Your task to perform on an android device: When is my next appointment? Image 0: 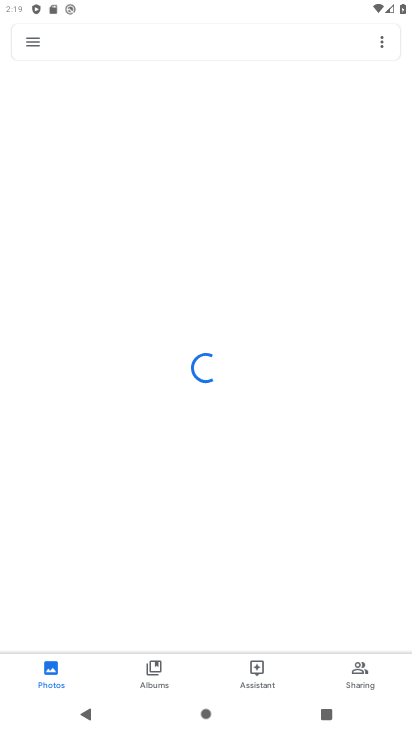
Step 0: press home button
Your task to perform on an android device: When is my next appointment? Image 1: 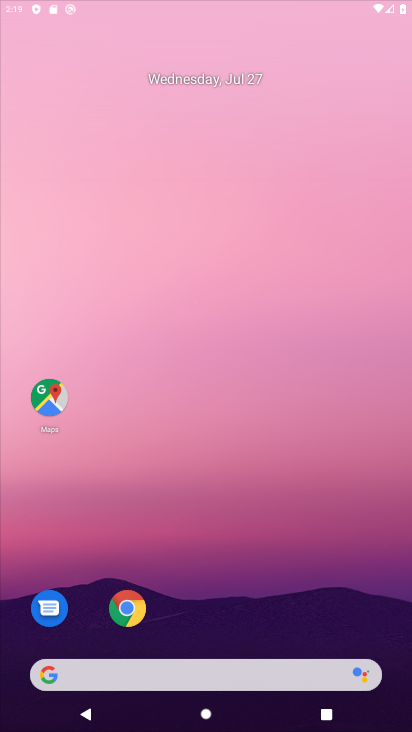
Step 1: drag from (299, 568) to (302, 243)
Your task to perform on an android device: When is my next appointment? Image 2: 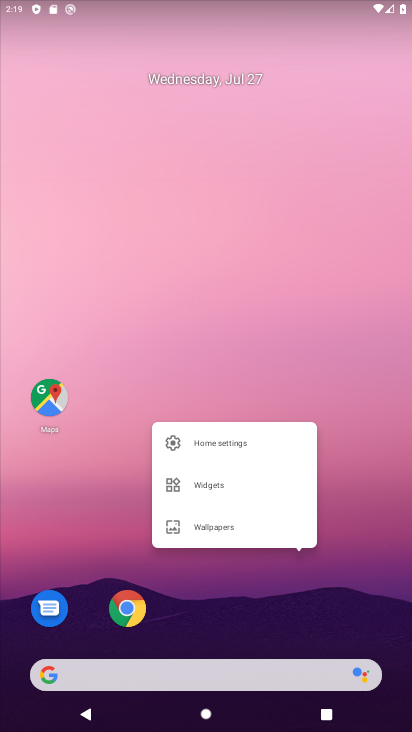
Step 2: click (285, 337)
Your task to perform on an android device: When is my next appointment? Image 3: 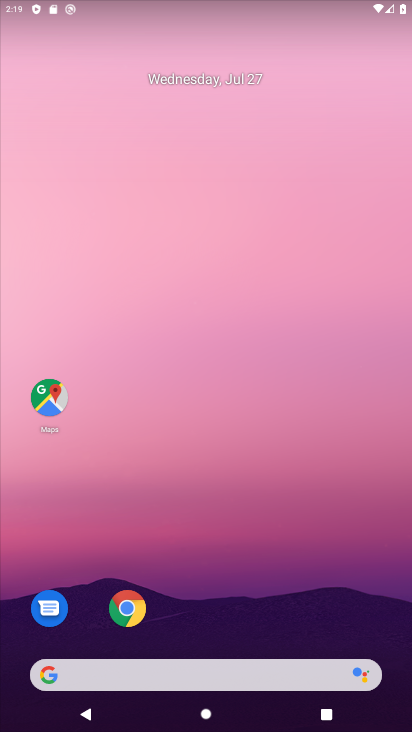
Step 3: drag from (278, 562) to (255, 12)
Your task to perform on an android device: When is my next appointment? Image 4: 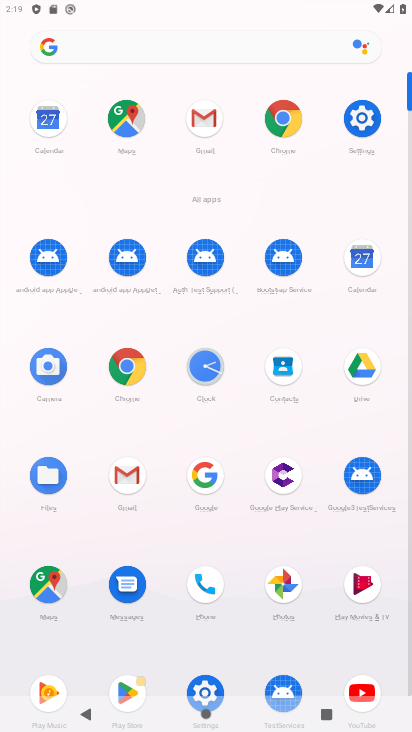
Step 4: click (365, 268)
Your task to perform on an android device: When is my next appointment? Image 5: 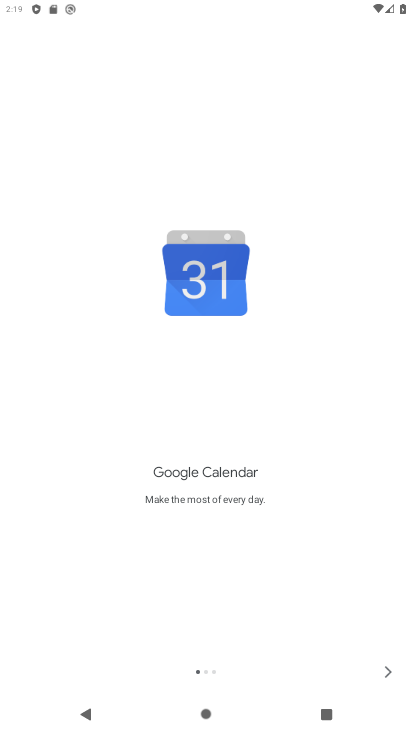
Step 5: click (387, 671)
Your task to perform on an android device: When is my next appointment? Image 6: 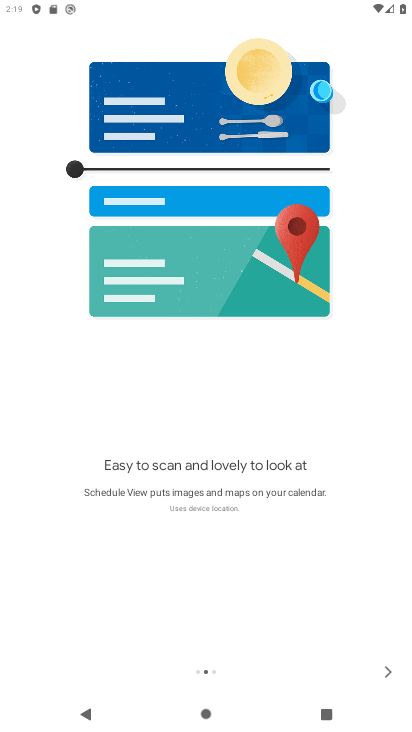
Step 6: click (387, 671)
Your task to perform on an android device: When is my next appointment? Image 7: 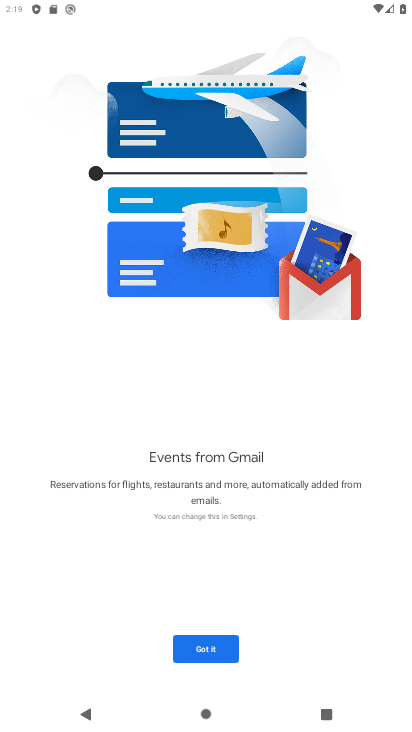
Step 7: click (198, 648)
Your task to perform on an android device: When is my next appointment? Image 8: 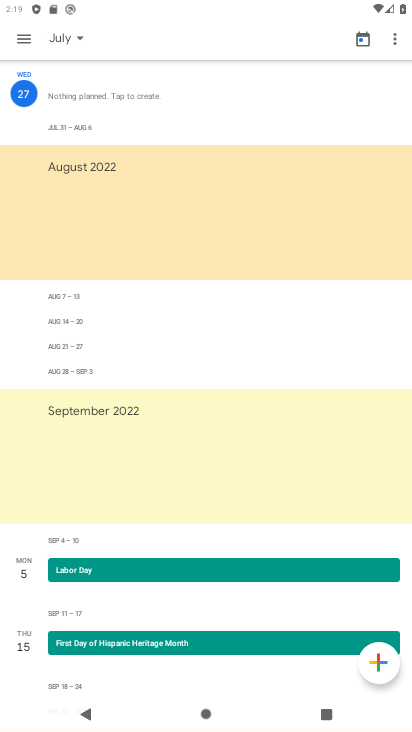
Step 8: task complete